Your task to perform on an android device: open chrome and create a bookmark for the current page Image 0: 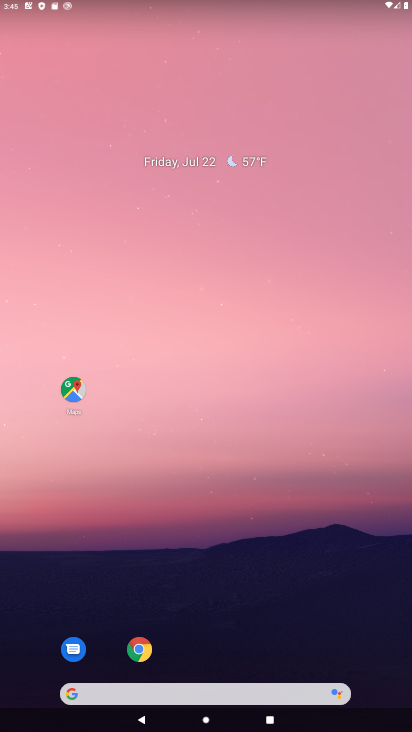
Step 0: click (133, 652)
Your task to perform on an android device: open chrome and create a bookmark for the current page Image 1: 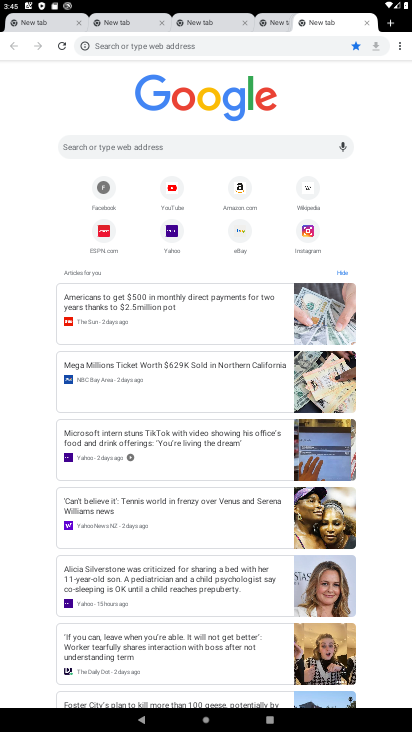
Step 1: press home button
Your task to perform on an android device: open chrome and create a bookmark for the current page Image 2: 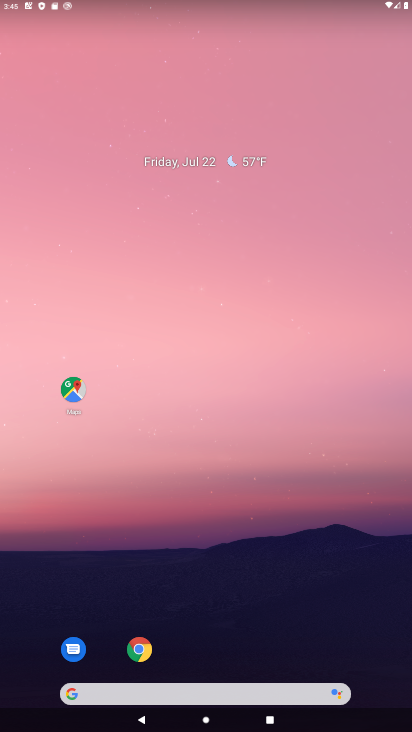
Step 2: click (150, 653)
Your task to perform on an android device: open chrome and create a bookmark for the current page Image 3: 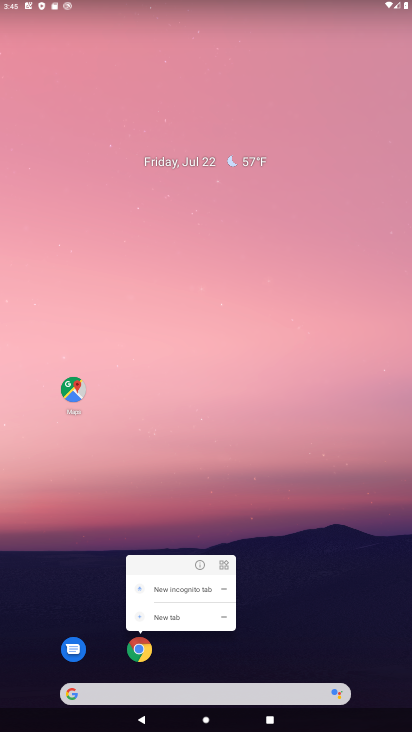
Step 3: click (119, 656)
Your task to perform on an android device: open chrome and create a bookmark for the current page Image 4: 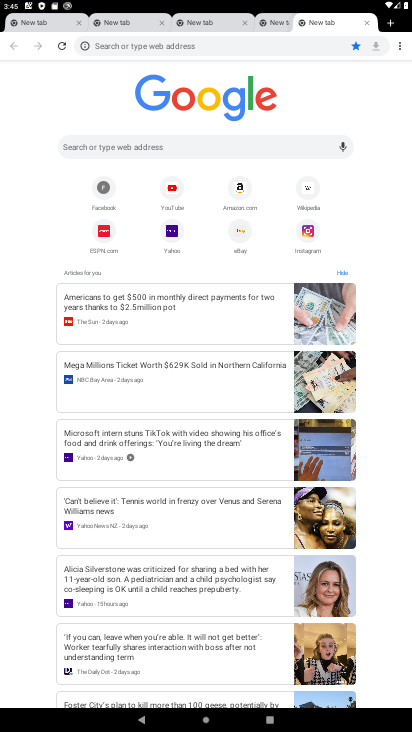
Step 4: click (398, 45)
Your task to perform on an android device: open chrome and create a bookmark for the current page Image 5: 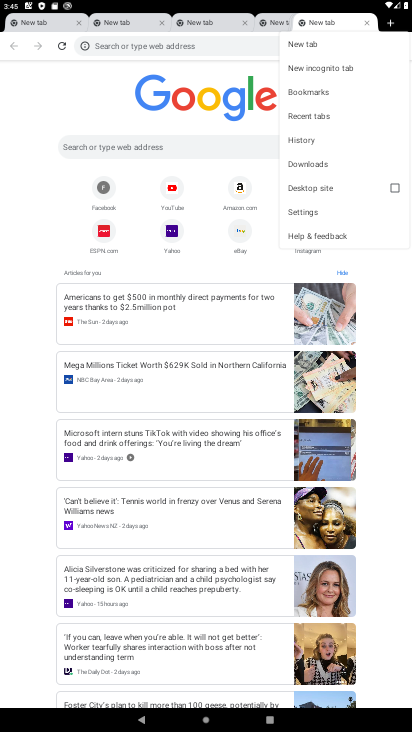
Step 5: click (314, 92)
Your task to perform on an android device: open chrome and create a bookmark for the current page Image 6: 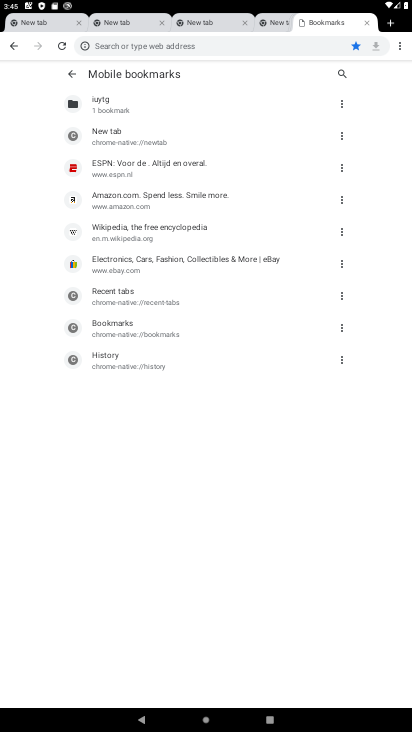
Step 6: task complete